Your task to perform on an android device: install app "Spotify: Music and Podcasts" Image 0: 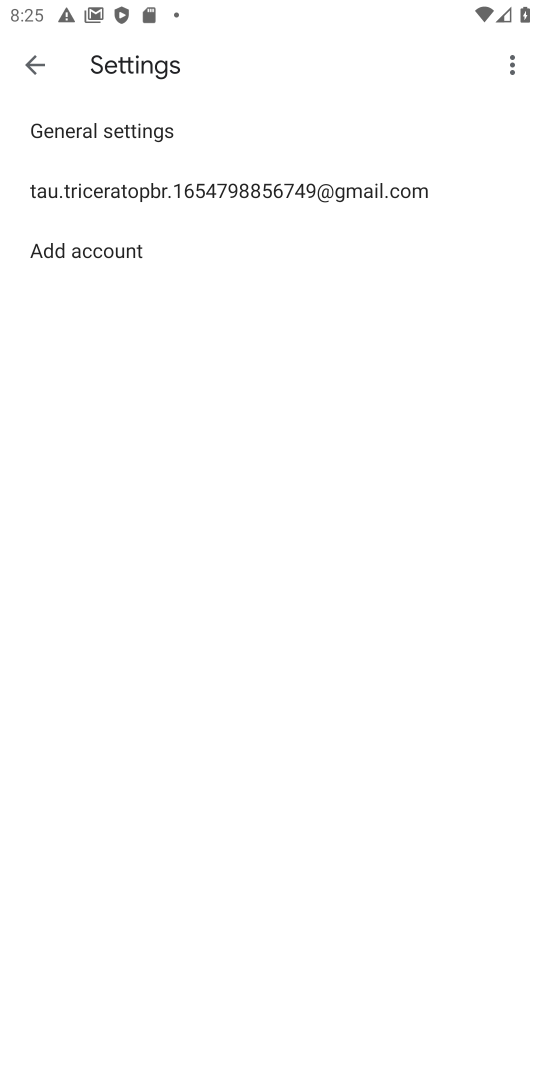
Step 0: press home button
Your task to perform on an android device: install app "Spotify: Music and Podcasts" Image 1: 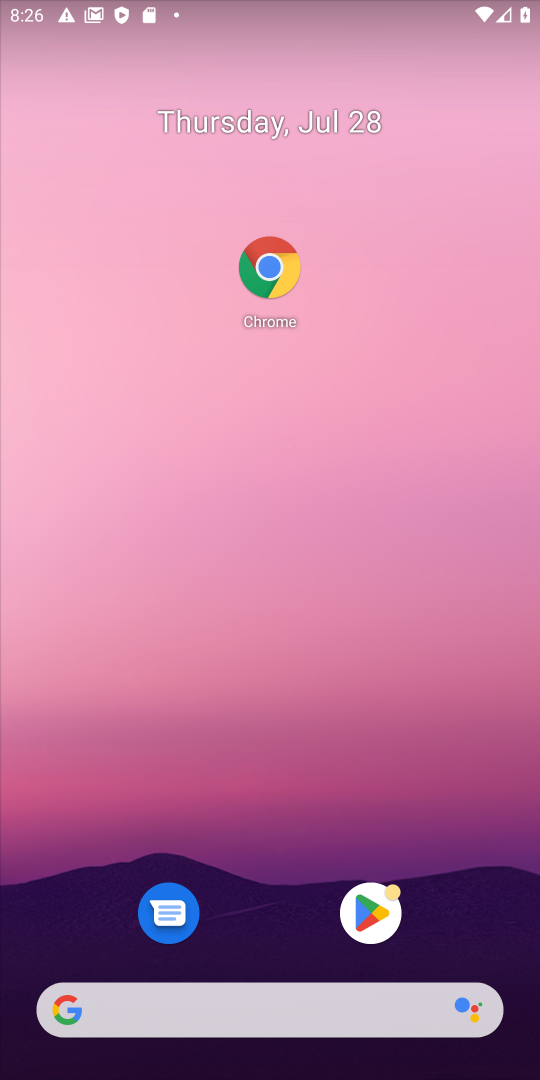
Step 1: click (364, 910)
Your task to perform on an android device: install app "Spotify: Music and Podcasts" Image 2: 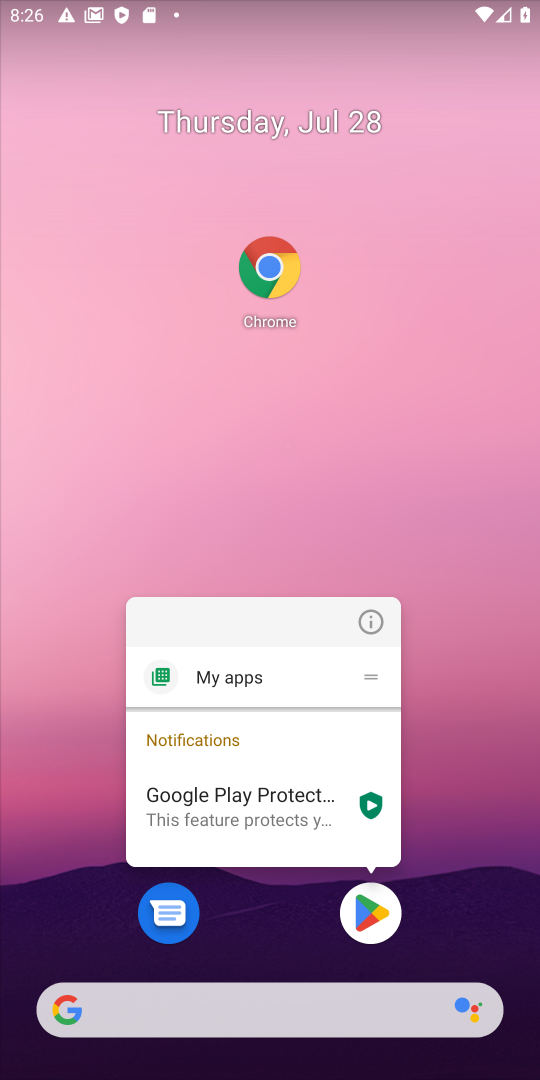
Step 2: click (364, 907)
Your task to perform on an android device: install app "Spotify: Music and Podcasts" Image 3: 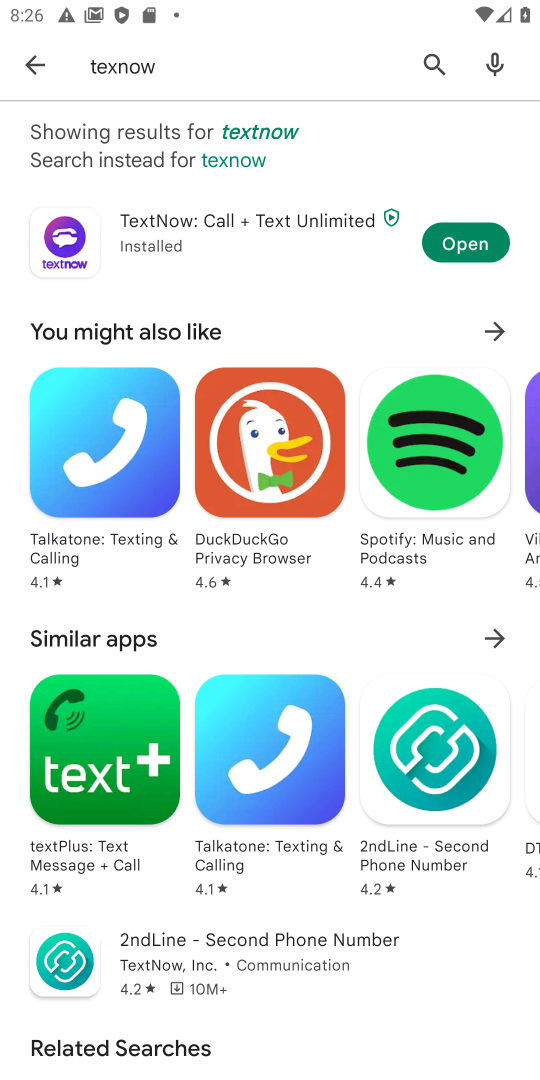
Step 3: click (428, 64)
Your task to perform on an android device: install app "Spotify: Music and Podcasts" Image 4: 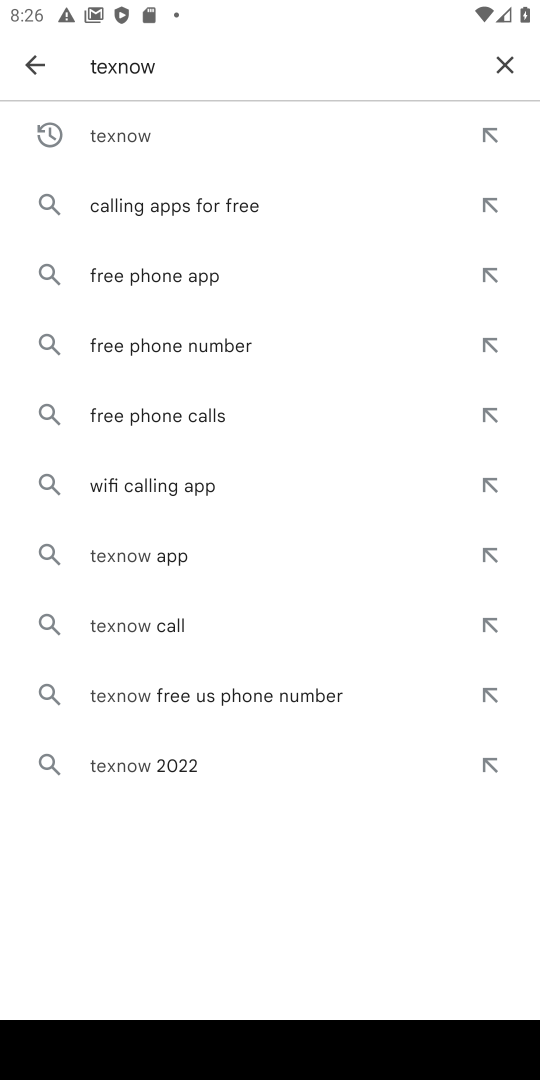
Step 4: click (493, 60)
Your task to perform on an android device: install app "Spotify: Music and Podcasts" Image 5: 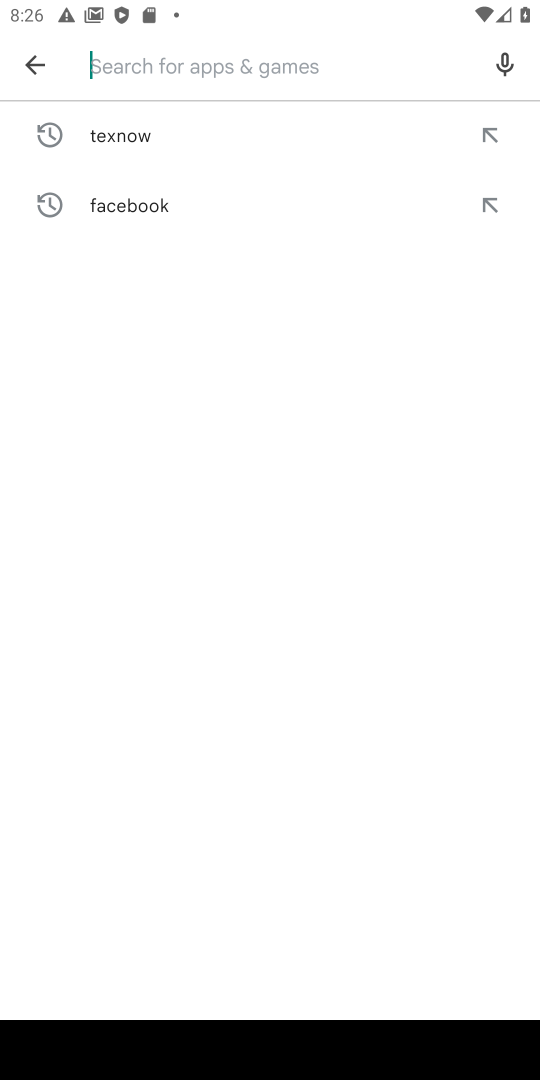
Step 5: type "spotify"
Your task to perform on an android device: install app "Spotify: Music and Podcasts" Image 6: 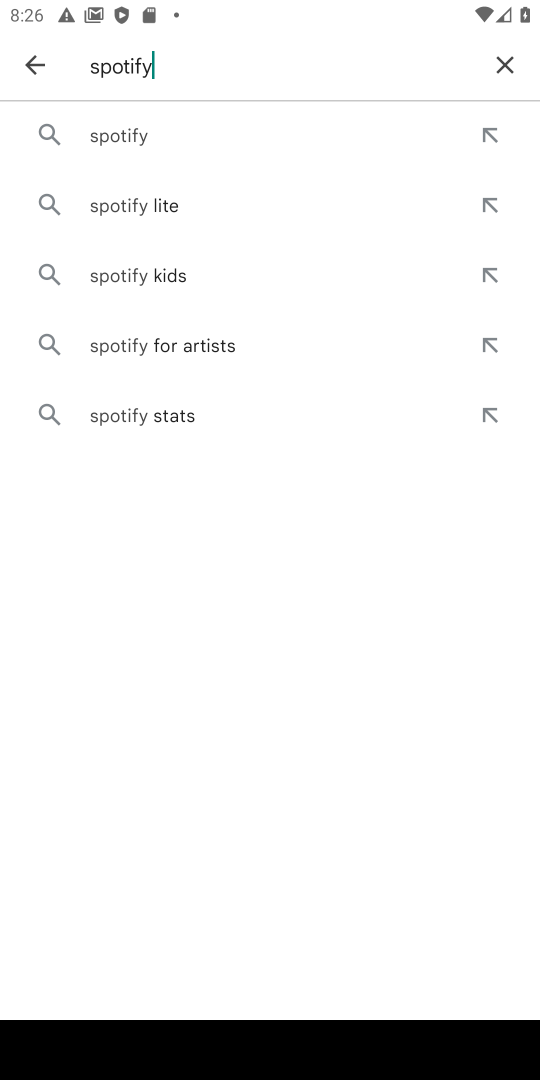
Step 6: click (199, 124)
Your task to perform on an android device: install app "Spotify: Music and Podcasts" Image 7: 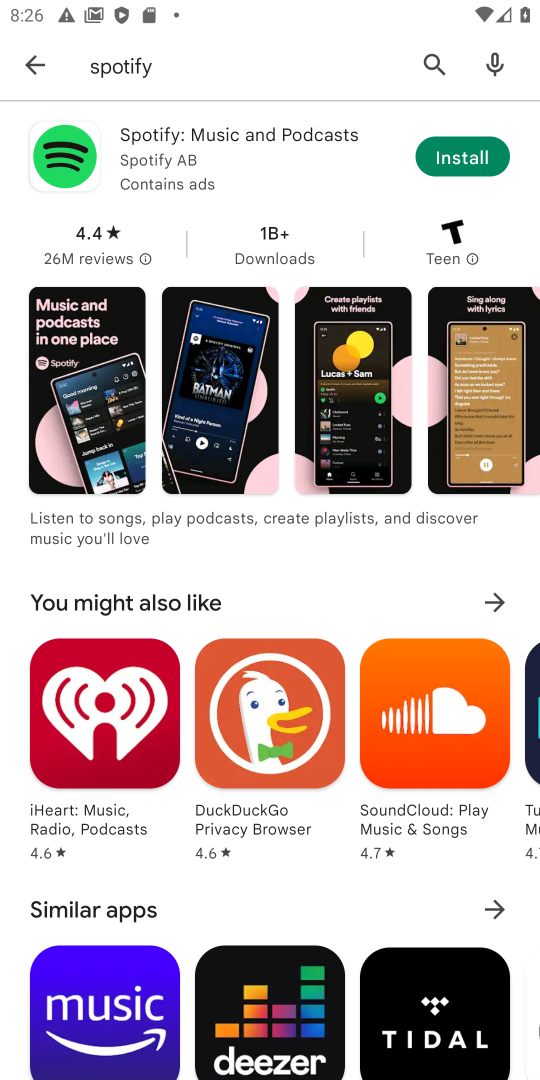
Step 7: click (453, 141)
Your task to perform on an android device: install app "Spotify: Music and Podcasts" Image 8: 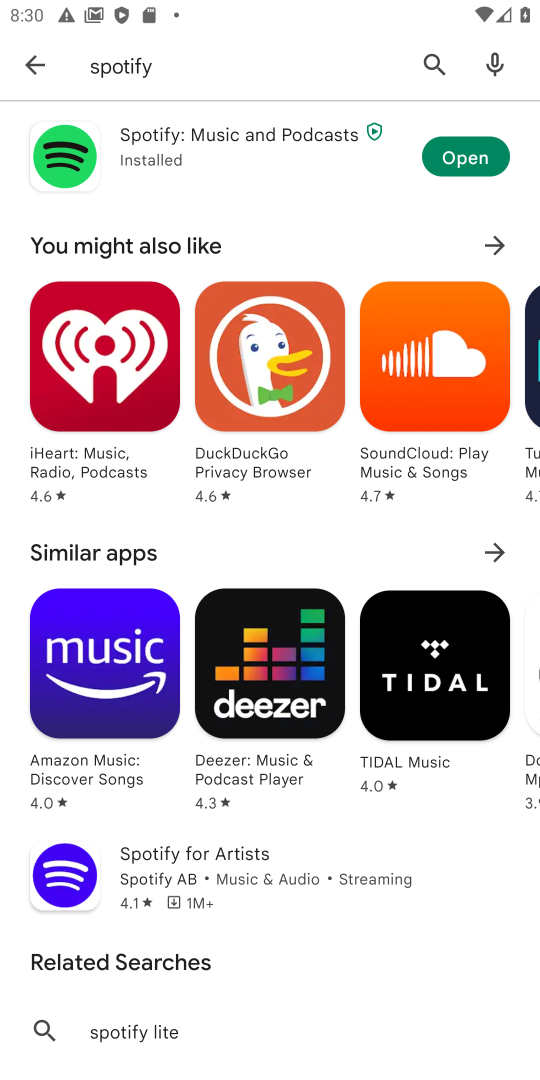
Step 8: task complete